Your task to perform on an android device: Open Google Chrome Image 0: 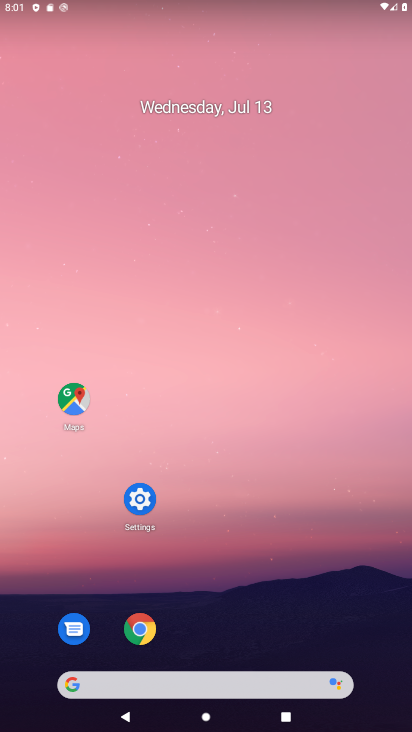
Step 0: click (140, 627)
Your task to perform on an android device: Open Google Chrome Image 1: 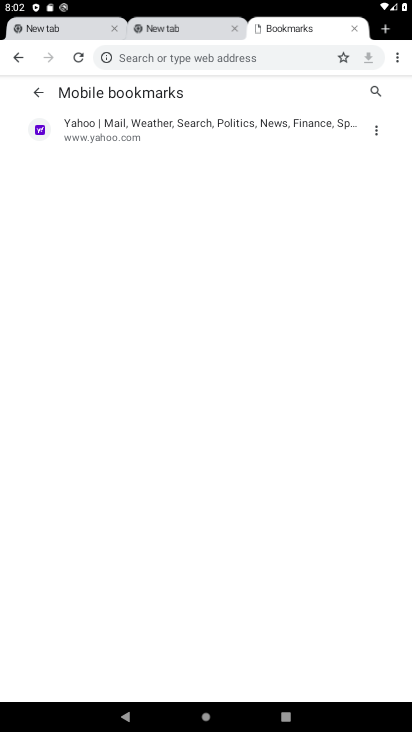
Step 1: click (18, 54)
Your task to perform on an android device: Open Google Chrome Image 2: 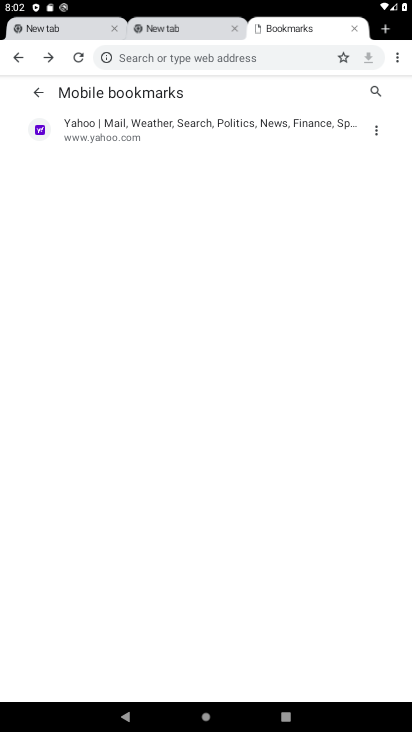
Step 2: click (36, 95)
Your task to perform on an android device: Open Google Chrome Image 3: 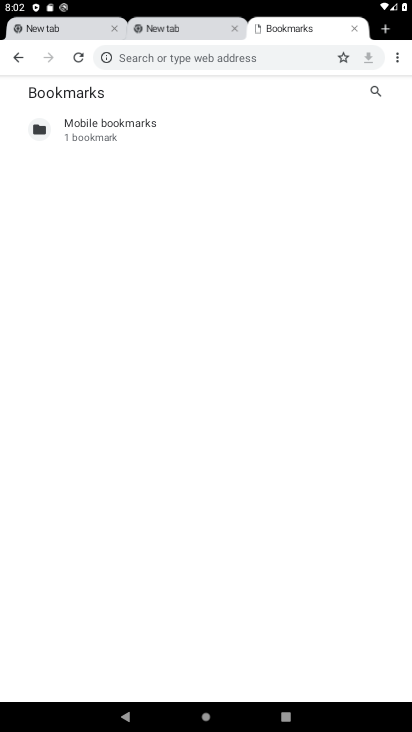
Step 3: press back button
Your task to perform on an android device: Open Google Chrome Image 4: 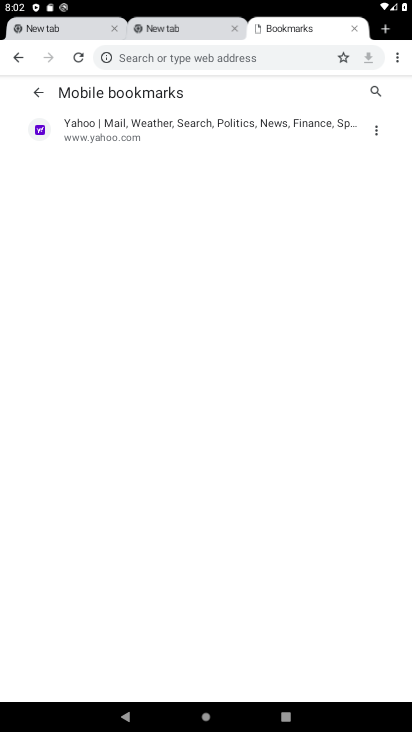
Step 4: press back button
Your task to perform on an android device: Open Google Chrome Image 5: 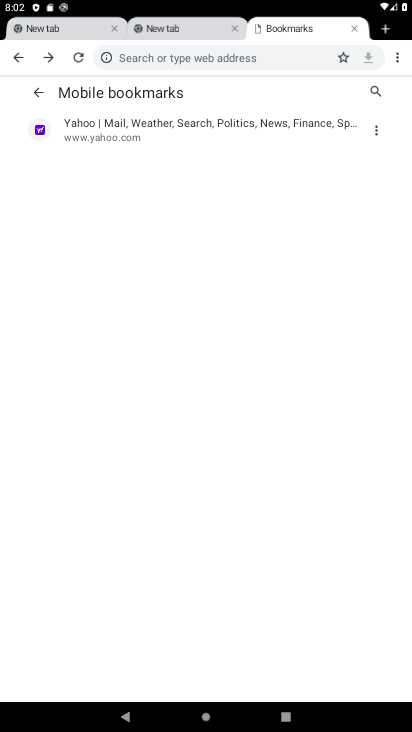
Step 5: press home button
Your task to perform on an android device: Open Google Chrome Image 6: 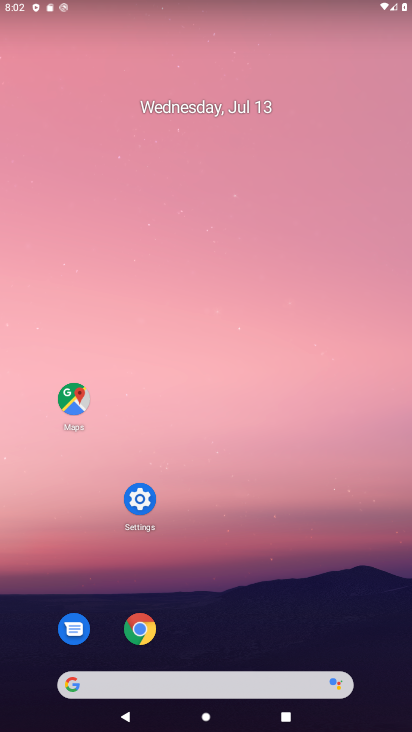
Step 6: click (141, 620)
Your task to perform on an android device: Open Google Chrome Image 7: 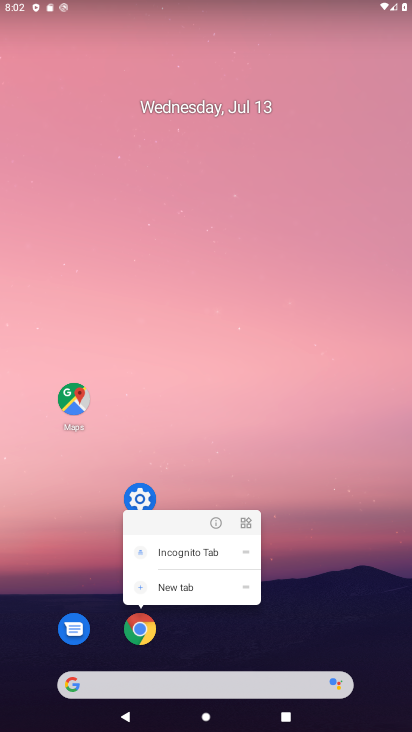
Step 7: click (143, 630)
Your task to perform on an android device: Open Google Chrome Image 8: 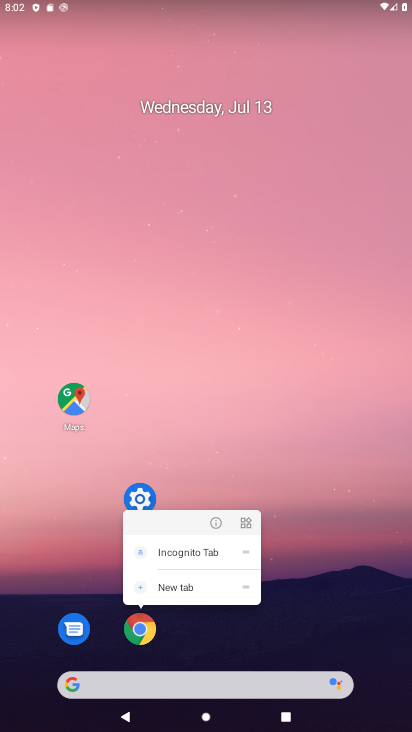
Step 8: click (142, 628)
Your task to perform on an android device: Open Google Chrome Image 9: 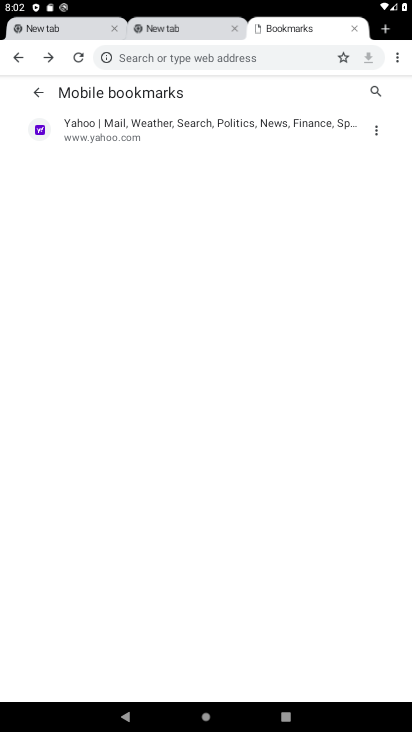
Step 9: task complete